Your task to perform on an android device: Open my contact list Image 0: 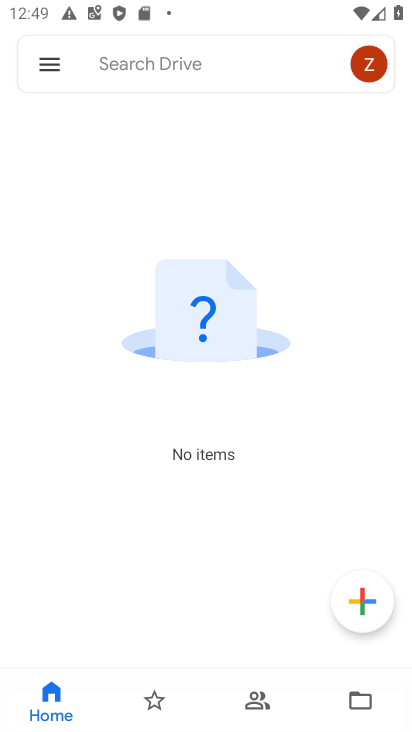
Step 0: press home button
Your task to perform on an android device: Open my contact list Image 1: 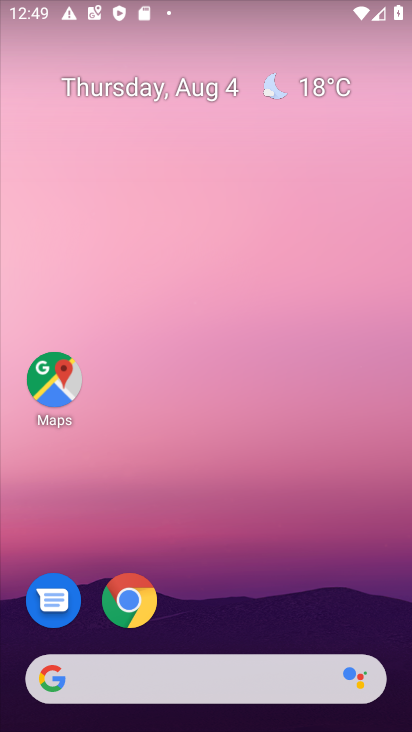
Step 1: drag from (156, 681) to (359, 28)
Your task to perform on an android device: Open my contact list Image 2: 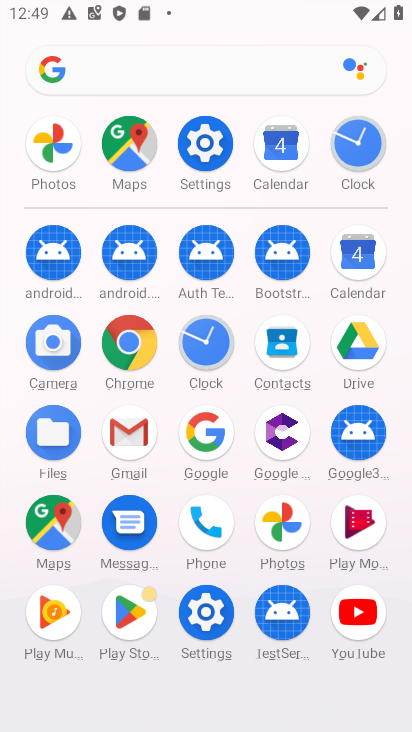
Step 2: click (284, 350)
Your task to perform on an android device: Open my contact list Image 3: 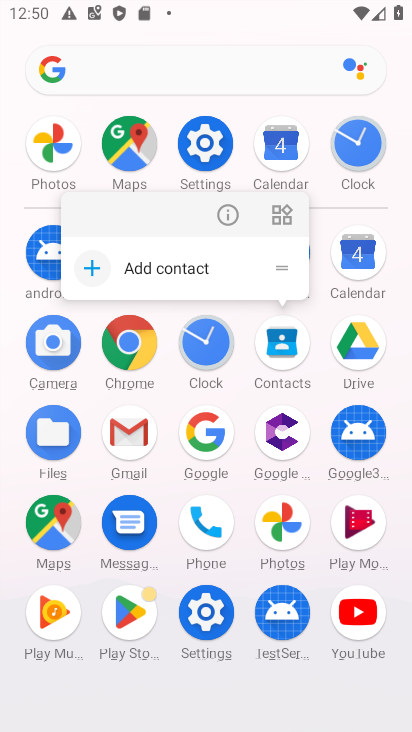
Step 3: click (274, 344)
Your task to perform on an android device: Open my contact list Image 4: 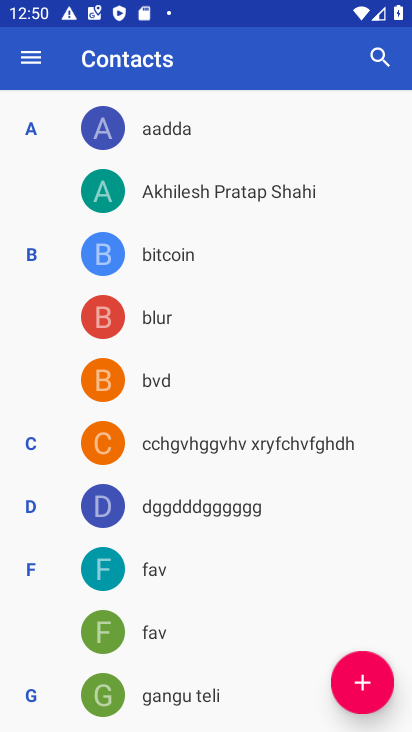
Step 4: task complete